Your task to perform on an android device: turn on translation in the chrome app Image 0: 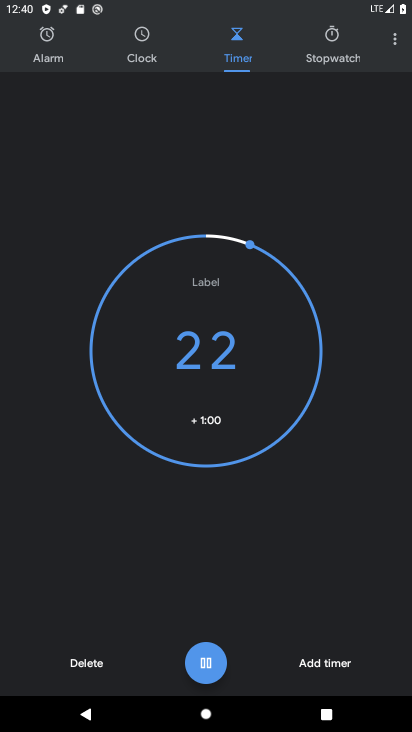
Step 0: press home button
Your task to perform on an android device: turn on translation in the chrome app Image 1: 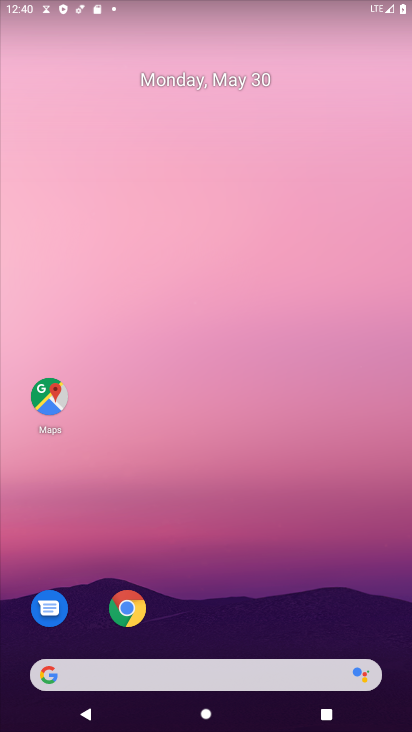
Step 1: click (131, 602)
Your task to perform on an android device: turn on translation in the chrome app Image 2: 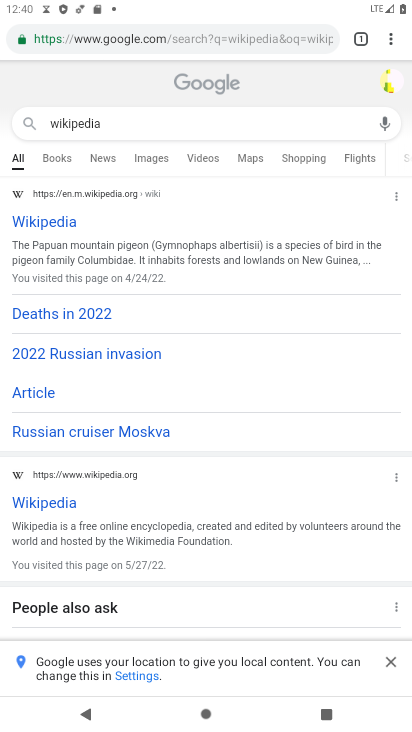
Step 2: click (386, 46)
Your task to perform on an android device: turn on translation in the chrome app Image 3: 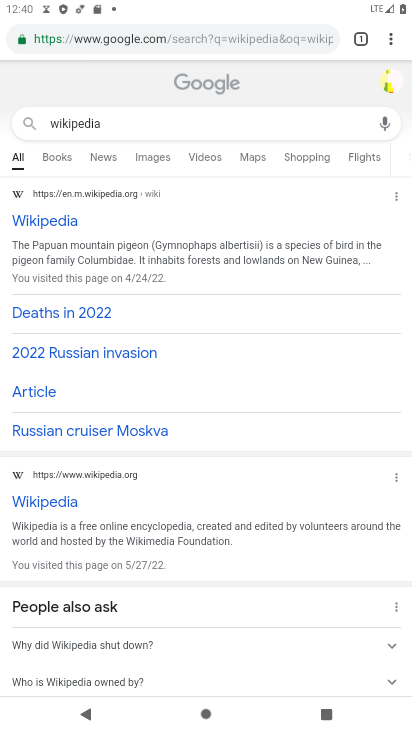
Step 3: click (387, 38)
Your task to perform on an android device: turn on translation in the chrome app Image 4: 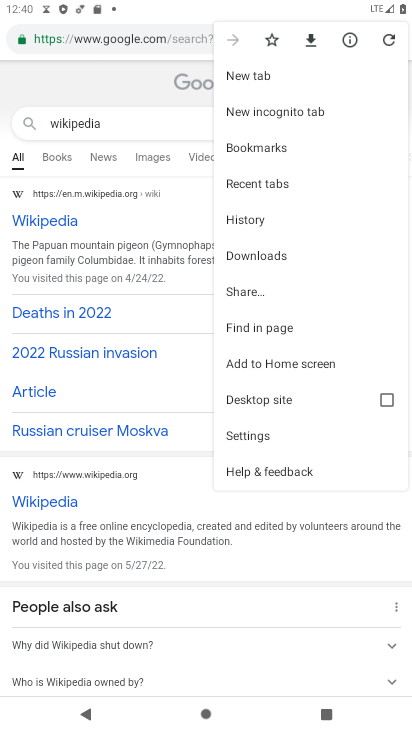
Step 4: click (251, 436)
Your task to perform on an android device: turn on translation in the chrome app Image 5: 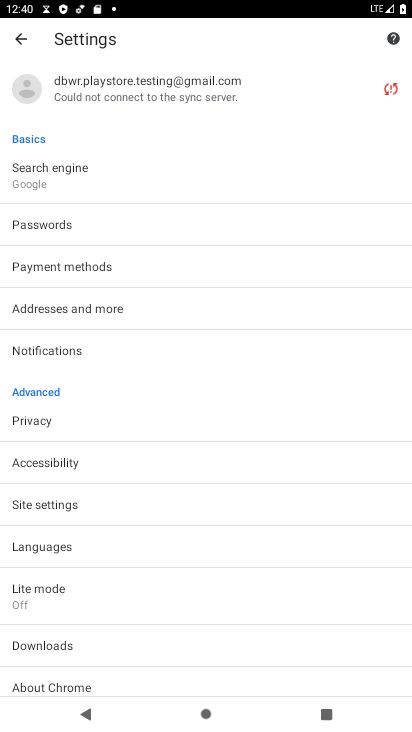
Step 5: click (85, 549)
Your task to perform on an android device: turn on translation in the chrome app Image 6: 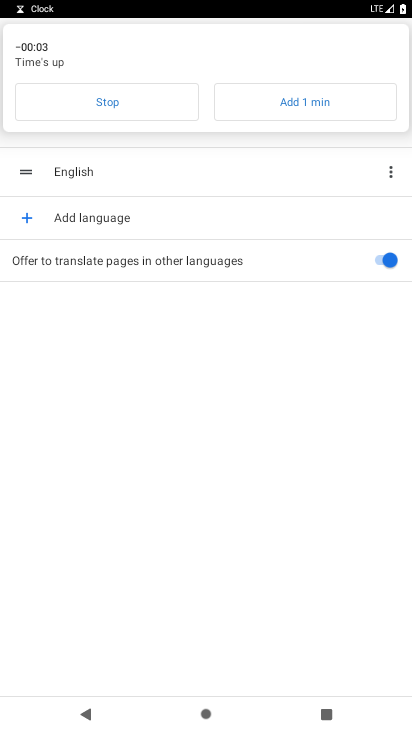
Step 6: click (79, 108)
Your task to perform on an android device: turn on translation in the chrome app Image 7: 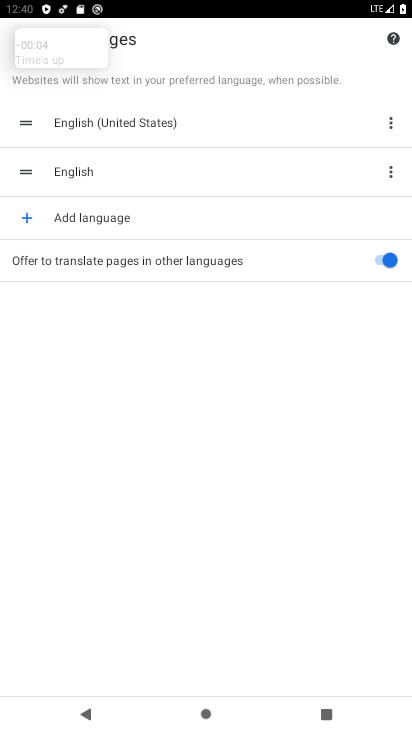
Step 7: task complete